Your task to perform on an android device: Open the web browser Image 0: 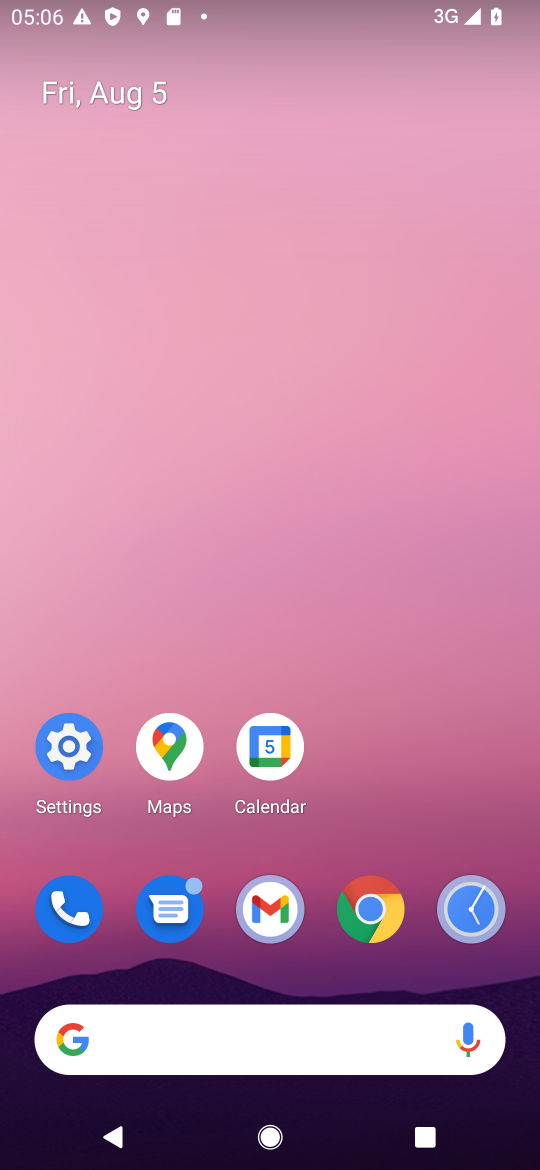
Step 0: click (361, 912)
Your task to perform on an android device: Open the web browser Image 1: 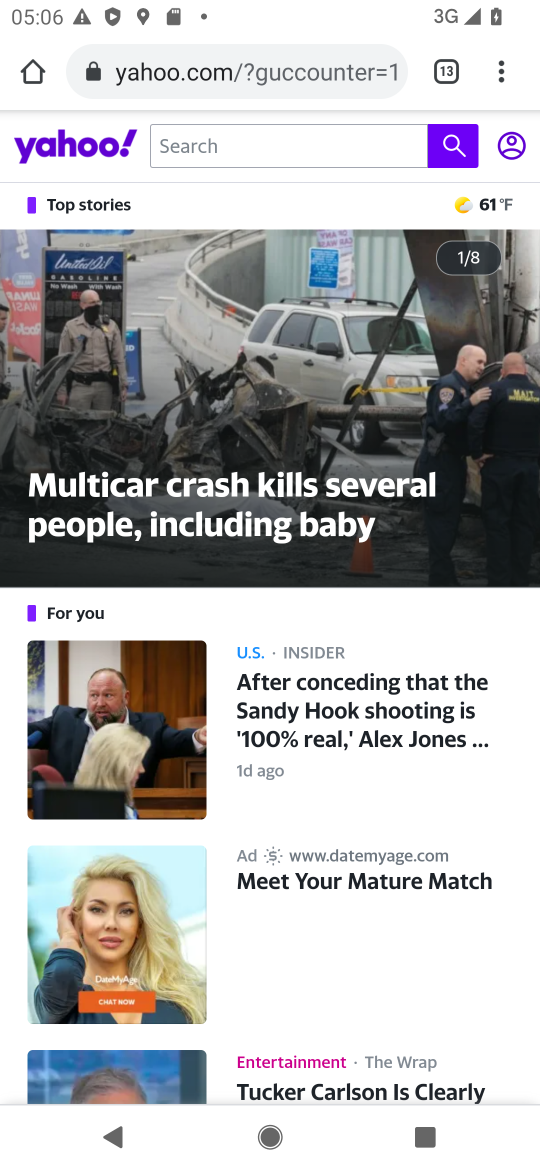
Step 1: task complete